Your task to perform on an android device: manage bookmarks in the chrome app Image 0: 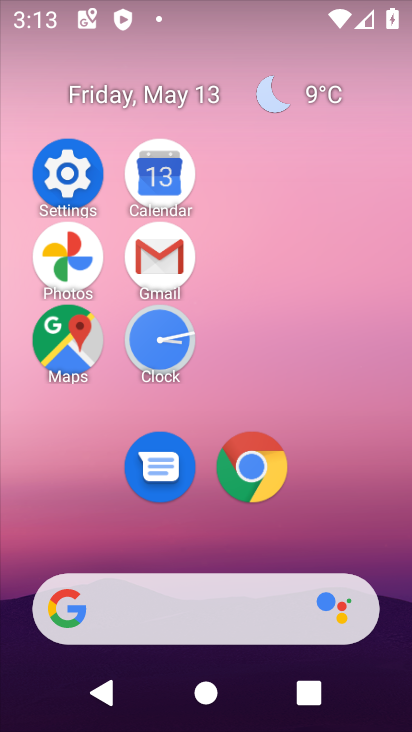
Step 0: click (252, 473)
Your task to perform on an android device: manage bookmarks in the chrome app Image 1: 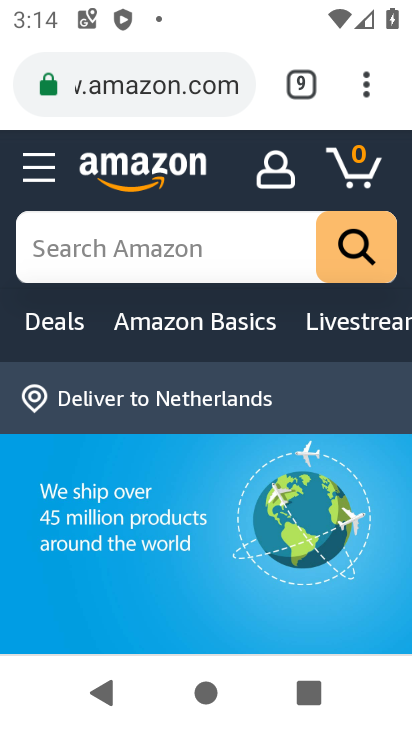
Step 1: click (370, 91)
Your task to perform on an android device: manage bookmarks in the chrome app Image 2: 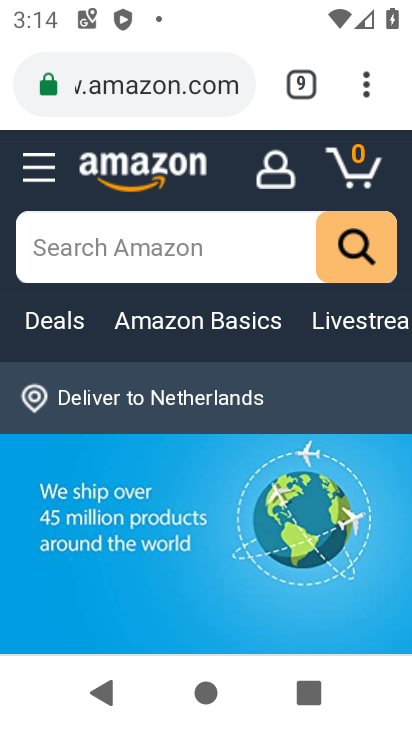
Step 2: click (356, 71)
Your task to perform on an android device: manage bookmarks in the chrome app Image 3: 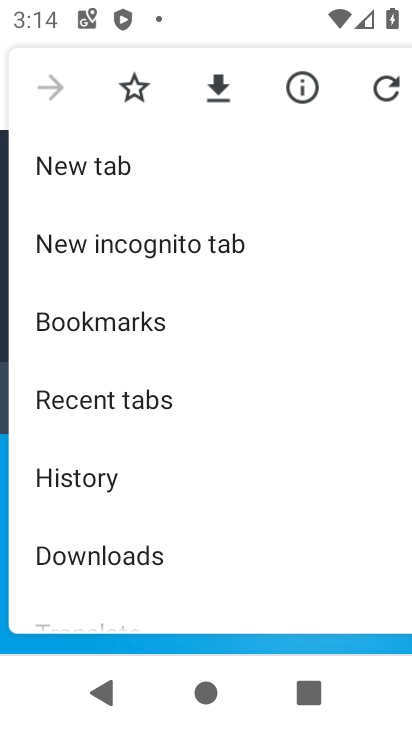
Step 3: drag from (220, 458) to (260, 178)
Your task to perform on an android device: manage bookmarks in the chrome app Image 4: 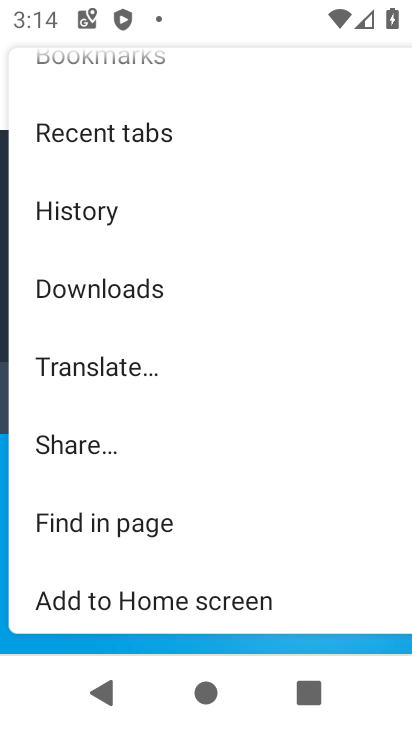
Step 4: drag from (244, 242) to (252, 564)
Your task to perform on an android device: manage bookmarks in the chrome app Image 5: 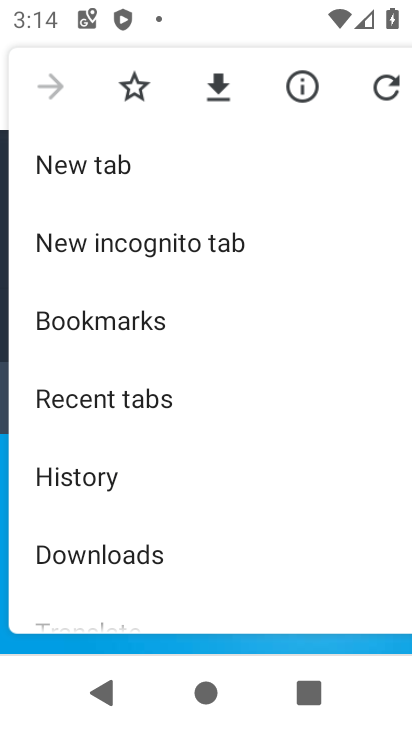
Step 5: click (154, 330)
Your task to perform on an android device: manage bookmarks in the chrome app Image 6: 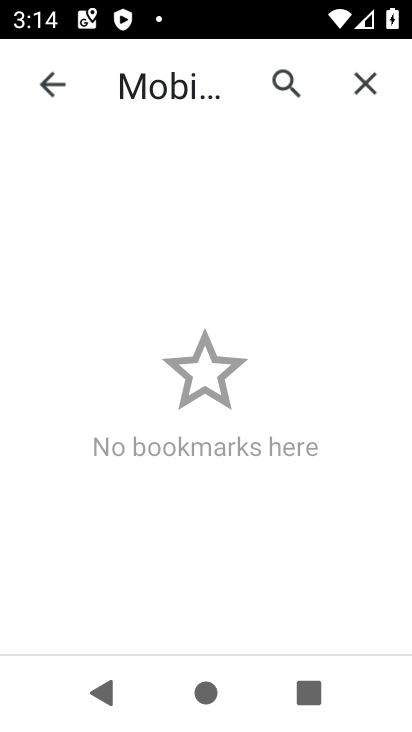
Step 6: task complete